Your task to perform on an android device: delete location history Image 0: 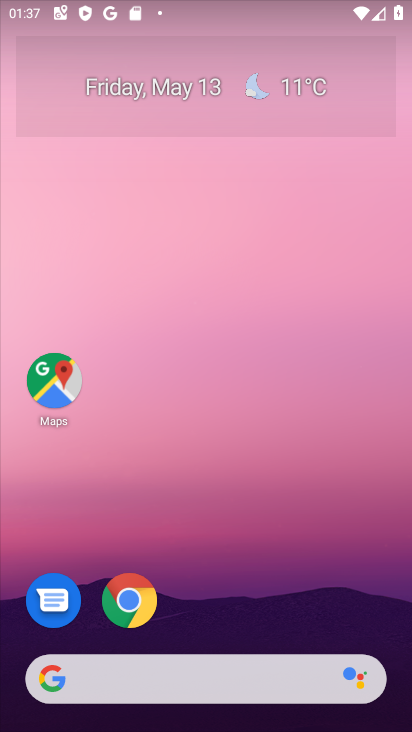
Step 0: drag from (190, 609) to (148, 1)
Your task to perform on an android device: delete location history Image 1: 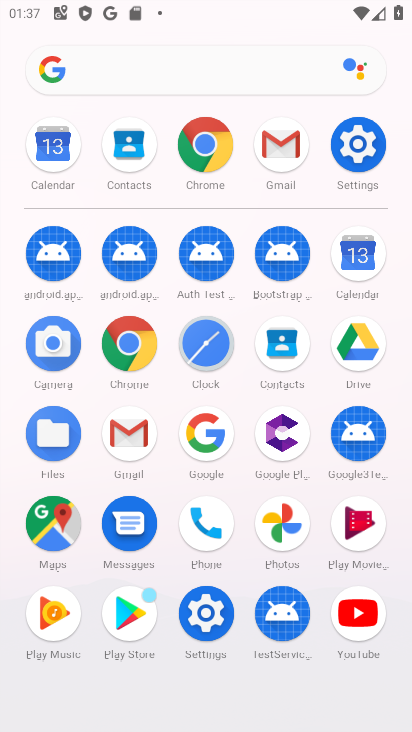
Step 1: click (356, 149)
Your task to perform on an android device: delete location history Image 2: 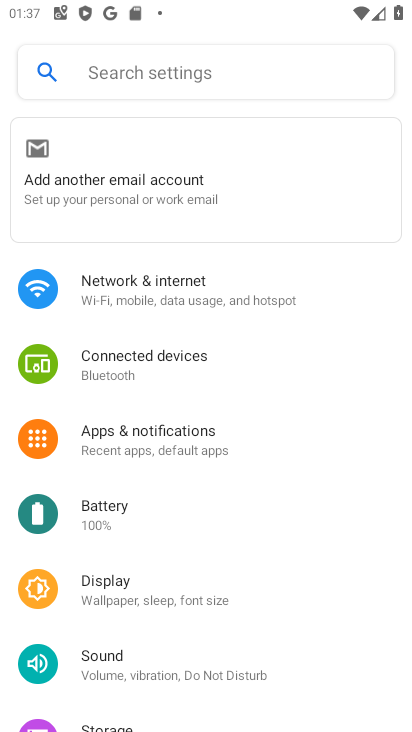
Step 2: drag from (180, 597) to (299, 117)
Your task to perform on an android device: delete location history Image 3: 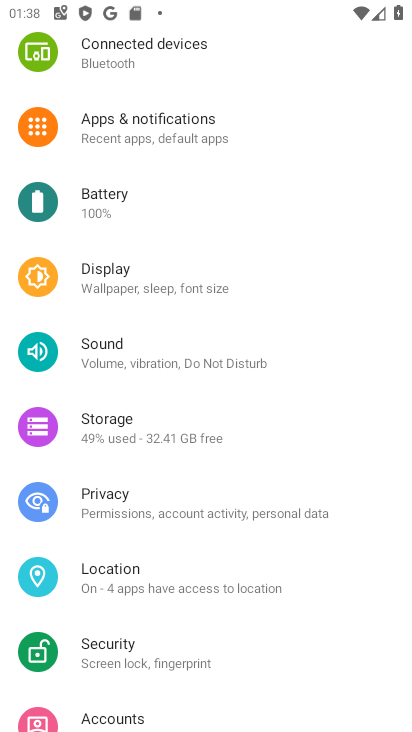
Step 3: click (160, 570)
Your task to perform on an android device: delete location history Image 4: 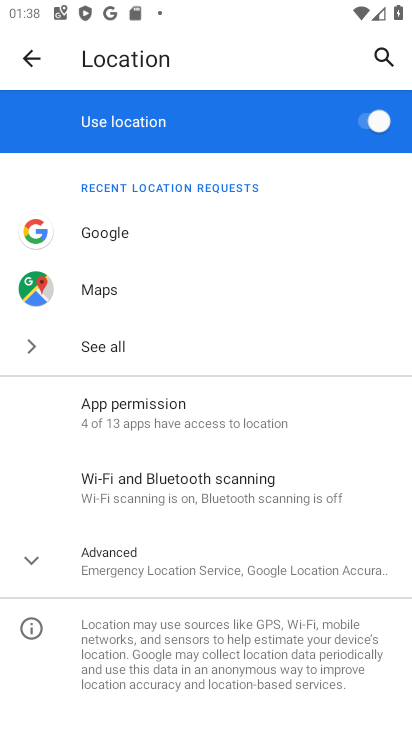
Step 4: click (152, 556)
Your task to perform on an android device: delete location history Image 5: 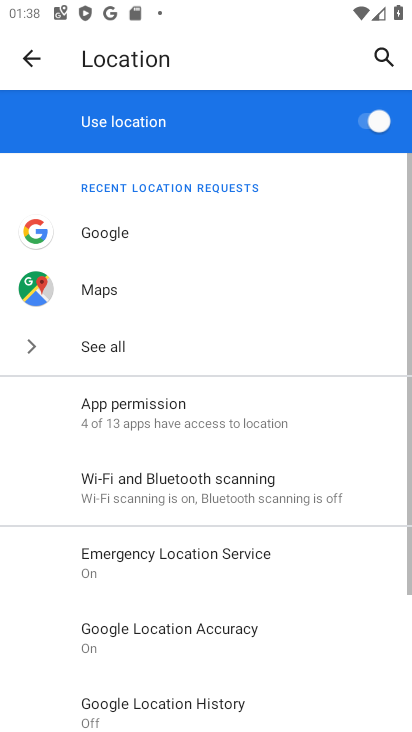
Step 5: drag from (151, 557) to (222, 165)
Your task to perform on an android device: delete location history Image 6: 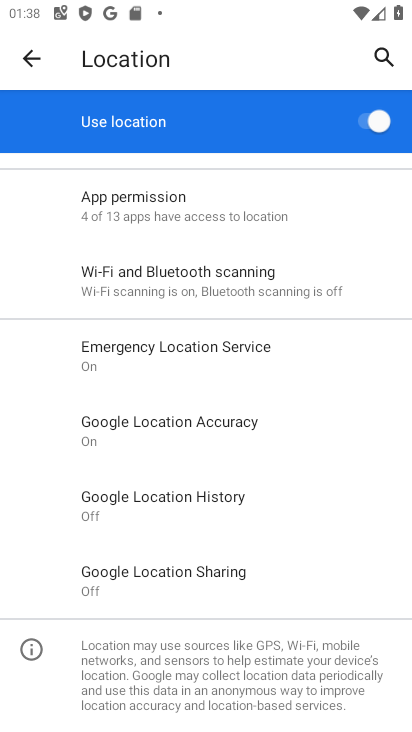
Step 6: click (213, 503)
Your task to perform on an android device: delete location history Image 7: 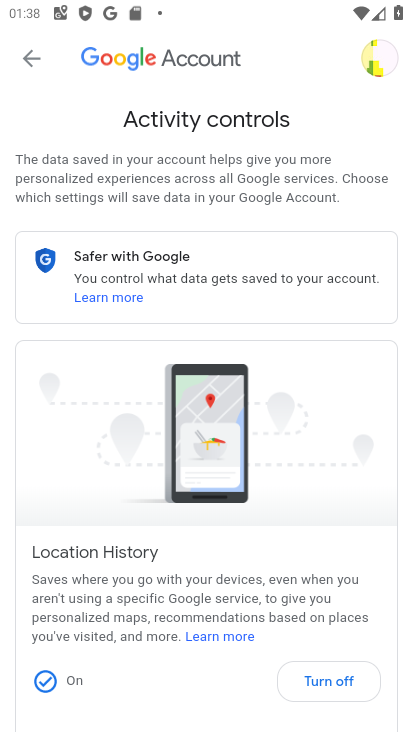
Step 7: drag from (233, 562) to (288, 196)
Your task to perform on an android device: delete location history Image 8: 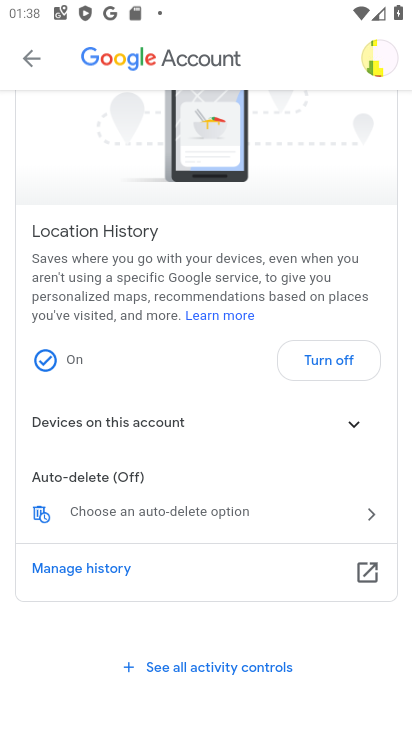
Step 8: drag from (260, 447) to (324, 202)
Your task to perform on an android device: delete location history Image 9: 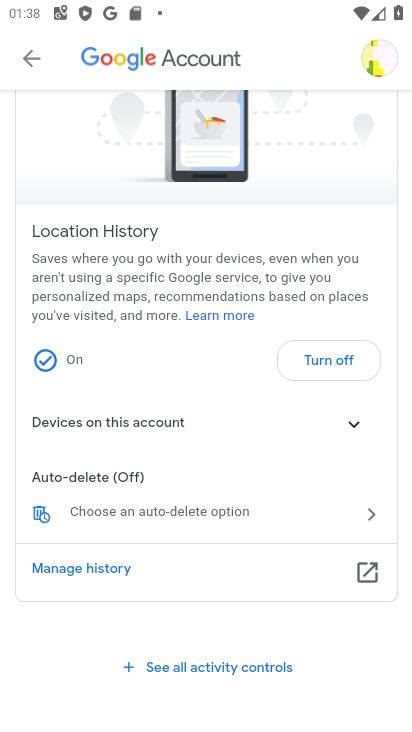
Step 9: click (35, 515)
Your task to perform on an android device: delete location history Image 10: 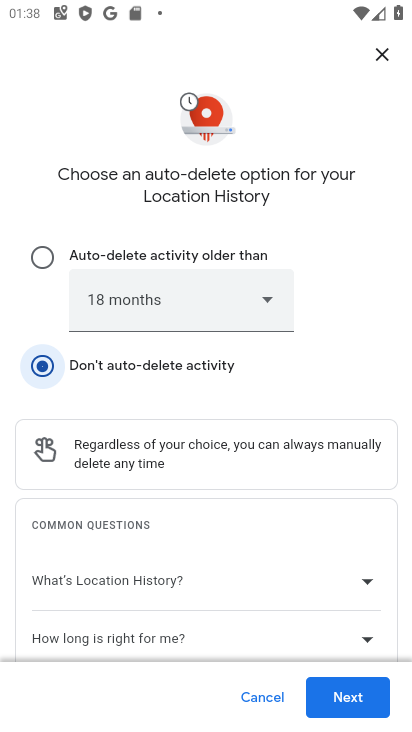
Step 10: click (356, 676)
Your task to perform on an android device: delete location history Image 11: 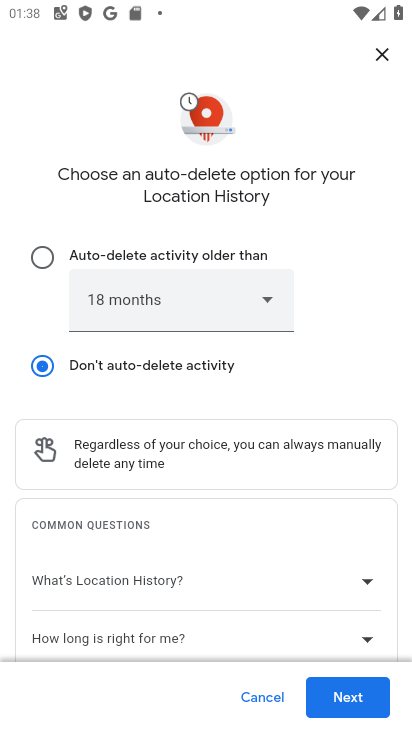
Step 11: click (337, 696)
Your task to perform on an android device: delete location history Image 12: 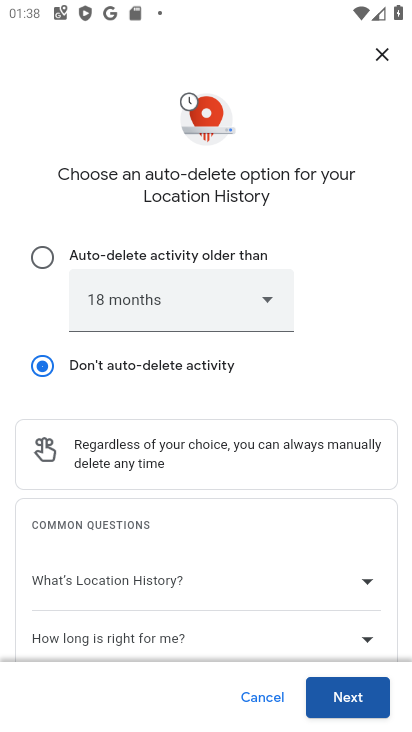
Step 12: click (337, 696)
Your task to perform on an android device: delete location history Image 13: 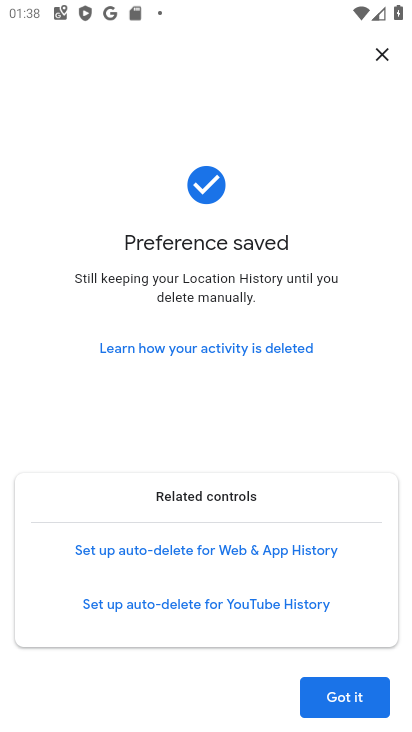
Step 13: click (344, 683)
Your task to perform on an android device: delete location history Image 14: 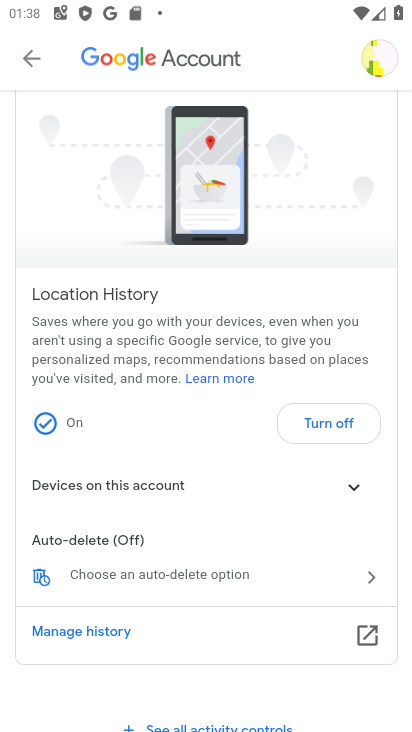
Step 14: task complete